Your task to perform on an android device: Go to accessibility settings Image 0: 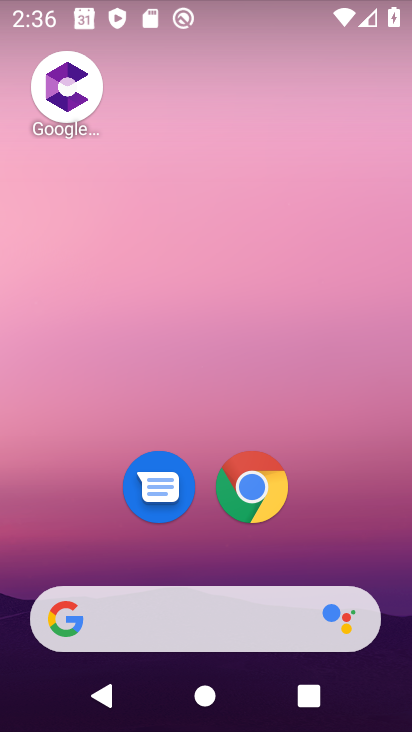
Step 0: drag from (348, 566) to (354, 32)
Your task to perform on an android device: Go to accessibility settings Image 1: 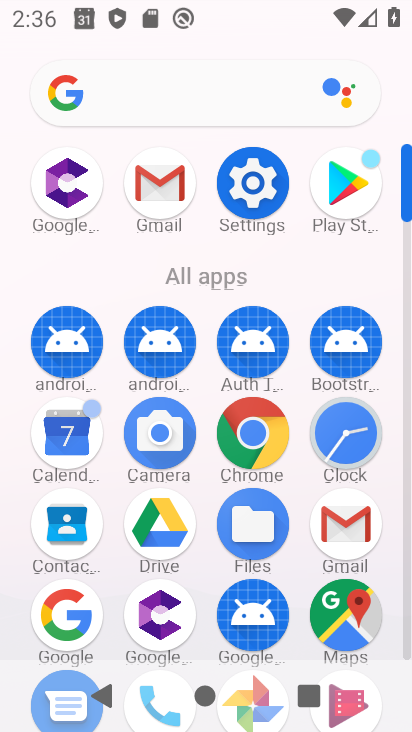
Step 1: click (259, 172)
Your task to perform on an android device: Go to accessibility settings Image 2: 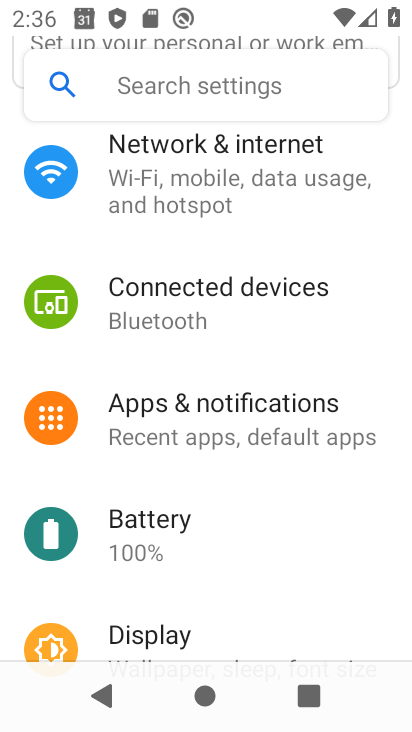
Step 2: drag from (275, 573) to (259, 156)
Your task to perform on an android device: Go to accessibility settings Image 3: 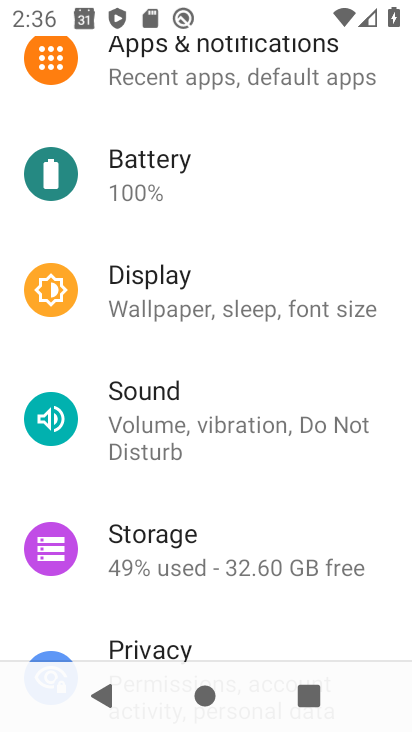
Step 3: drag from (266, 606) to (240, 212)
Your task to perform on an android device: Go to accessibility settings Image 4: 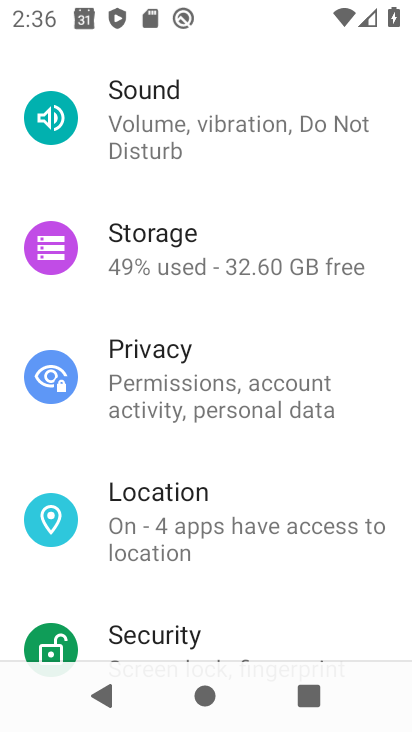
Step 4: drag from (270, 205) to (250, 684)
Your task to perform on an android device: Go to accessibility settings Image 5: 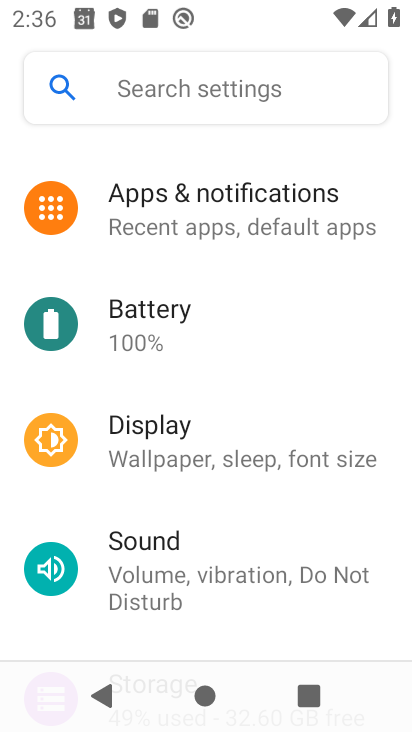
Step 5: drag from (284, 632) to (279, 156)
Your task to perform on an android device: Go to accessibility settings Image 6: 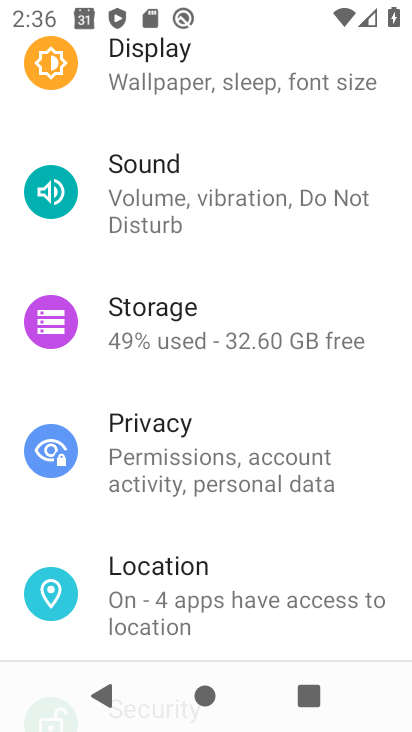
Step 6: drag from (280, 635) to (269, 135)
Your task to perform on an android device: Go to accessibility settings Image 7: 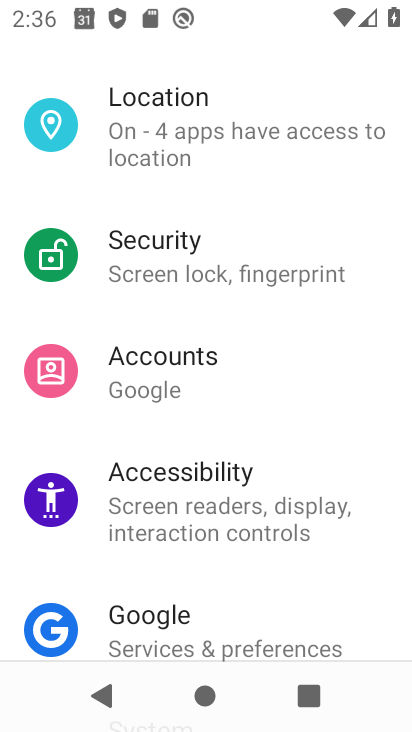
Step 7: click (210, 501)
Your task to perform on an android device: Go to accessibility settings Image 8: 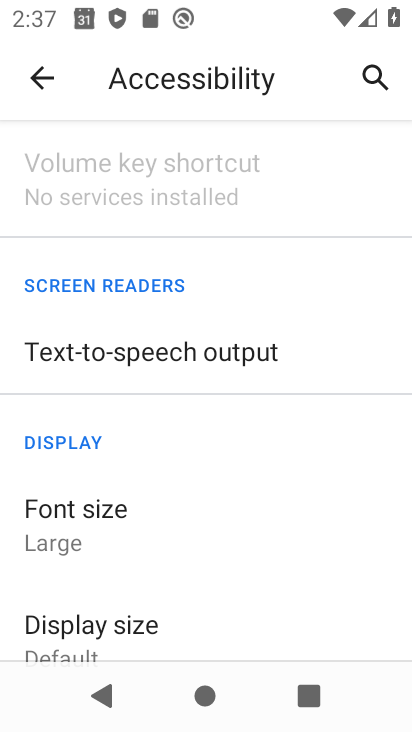
Step 8: task complete